Your task to perform on an android device: turn pop-ups on in chrome Image 0: 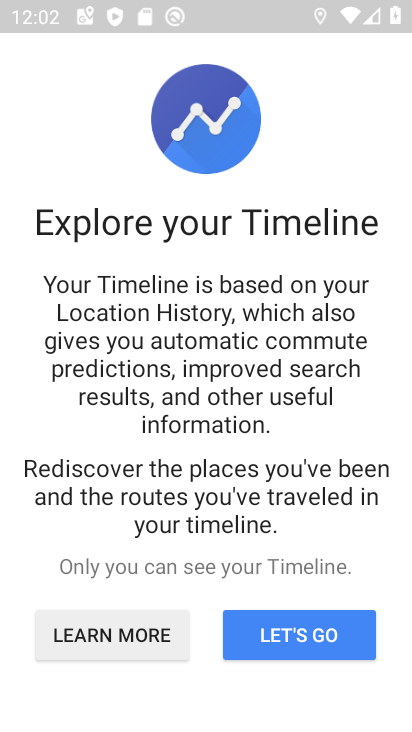
Step 0: press home button
Your task to perform on an android device: turn pop-ups on in chrome Image 1: 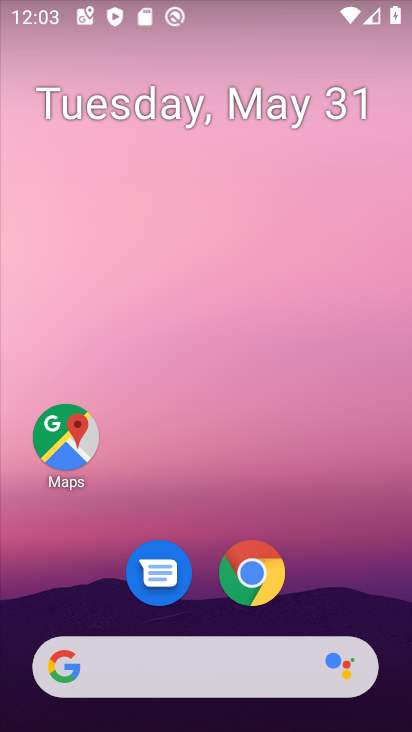
Step 1: click (256, 577)
Your task to perform on an android device: turn pop-ups on in chrome Image 2: 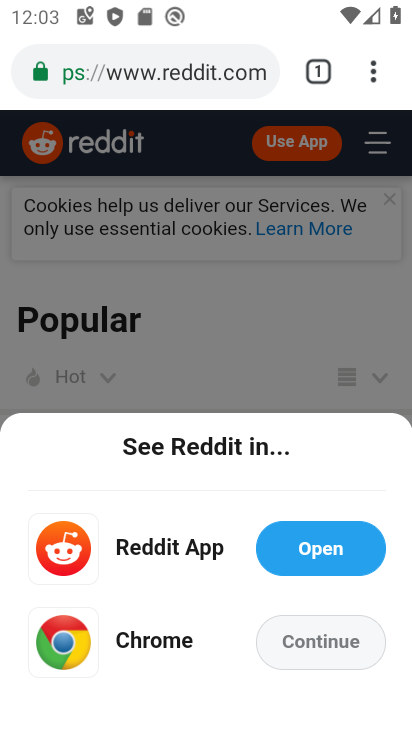
Step 2: click (376, 75)
Your task to perform on an android device: turn pop-ups on in chrome Image 3: 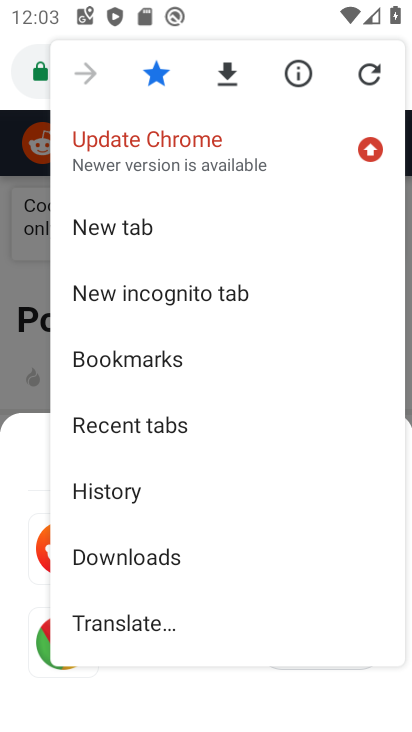
Step 3: drag from (261, 591) to (379, 24)
Your task to perform on an android device: turn pop-ups on in chrome Image 4: 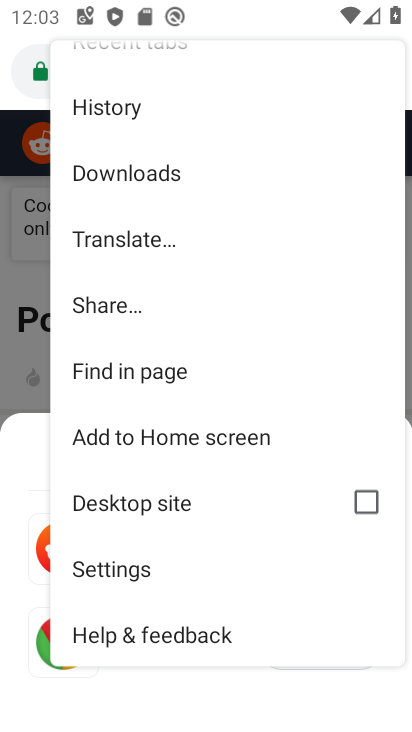
Step 4: click (167, 561)
Your task to perform on an android device: turn pop-ups on in chrome Image 5: 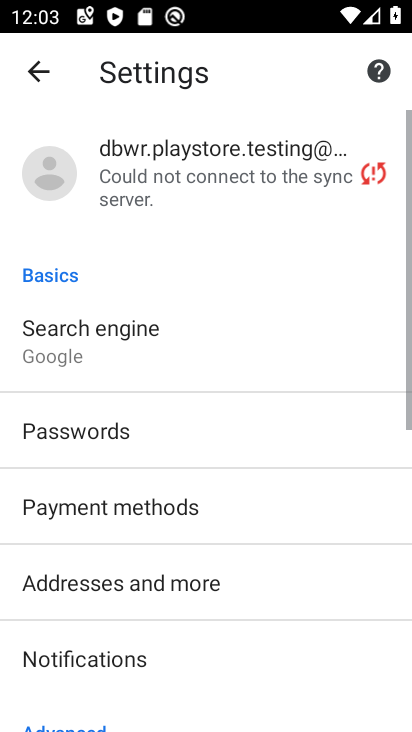
Step 5: drag from (239, 628) to (284, 23)
Your task to perform on an android device: turn pop-ups on in chrome Image 6: 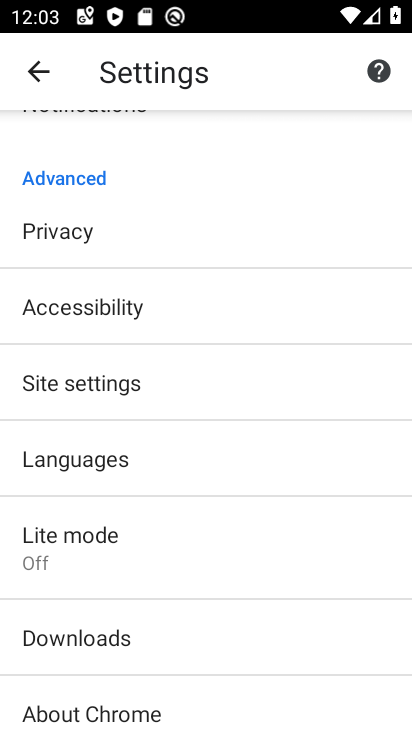
Step 6: click (121, 364)
Your task to perform on an android device: turn pop-ups on in chrome Image 7: 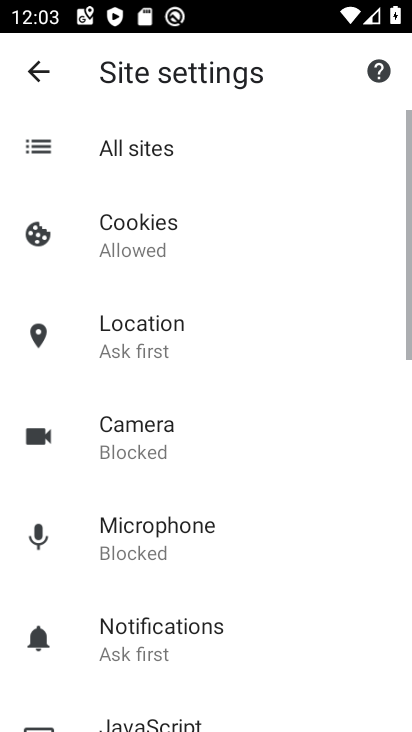
Step 7: drag from (120, 636) to (239, 88)
Your task to perform on an android device: turn pop-ups on in chrome Image 8: 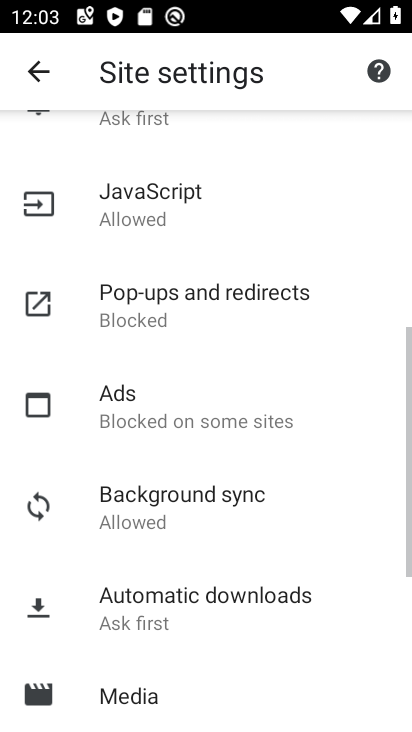
Step 8: click (258, 272)
Your task to perform on an android device: turn pop-ups on in chrome Image 9: 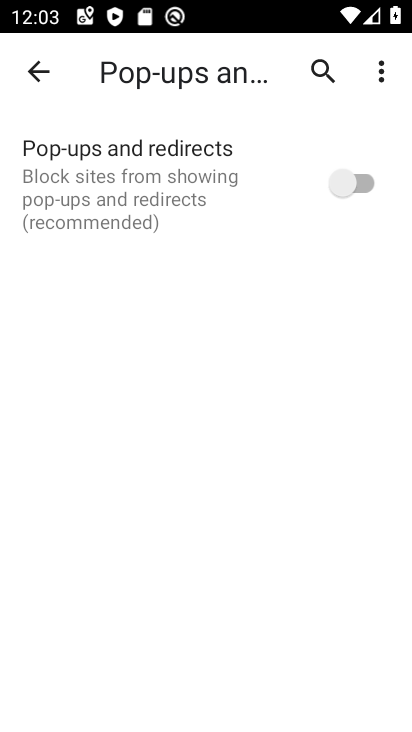
Step 9: click (372, 161)
Your task to perform on an android device: turn pop-ups on in chrome Image 10: 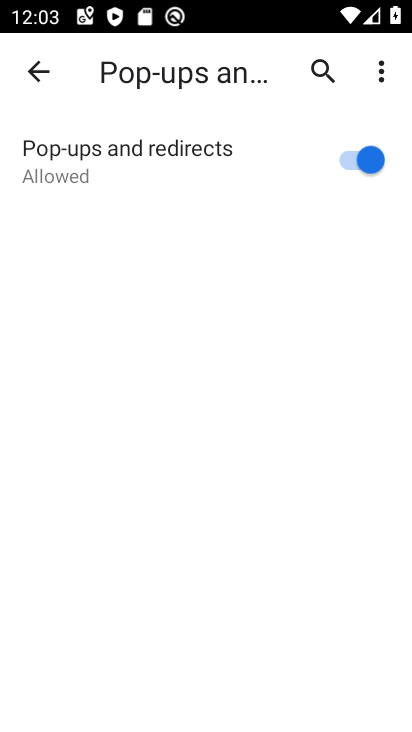
Step 10: click (332, 183)
Your task to perform on an android device: turn pop-ups on in chrome Image 11: 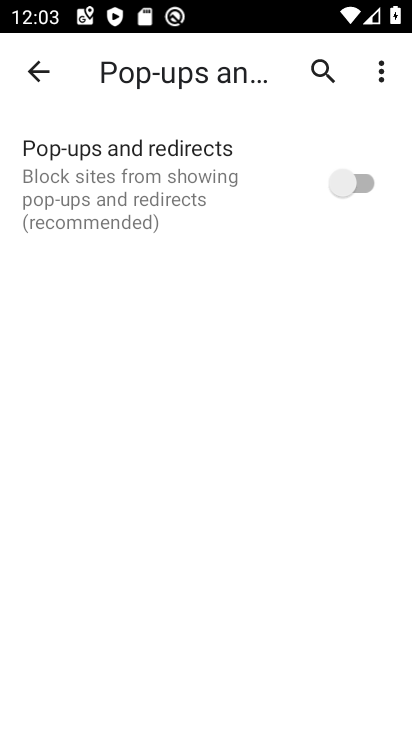
Step 11: click (361, 179)
Your task to perform on an android device: turn pop-ups on in chrome Image 12: 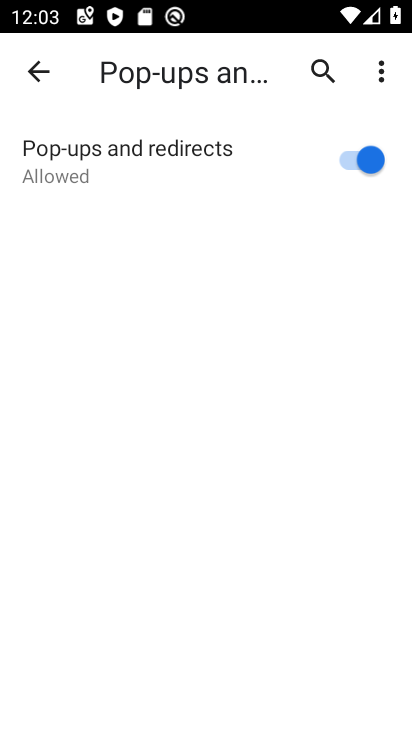
Step 12: task complete